Your task to perform on an android device: Go to sound settings Image 0: 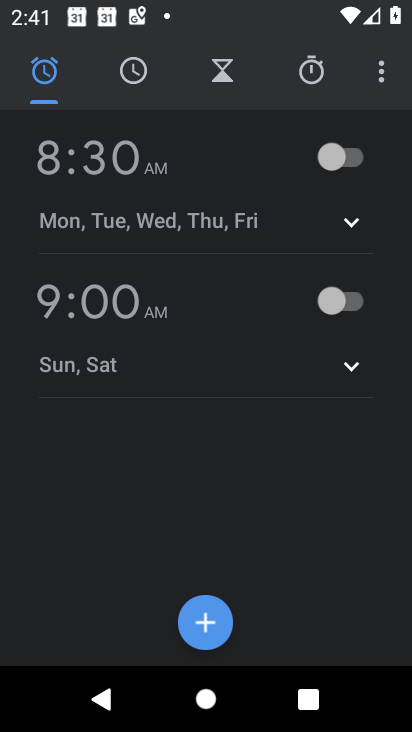
Step 0: press home button
Your task to perform on an android device: Go to sound settings Image 1: 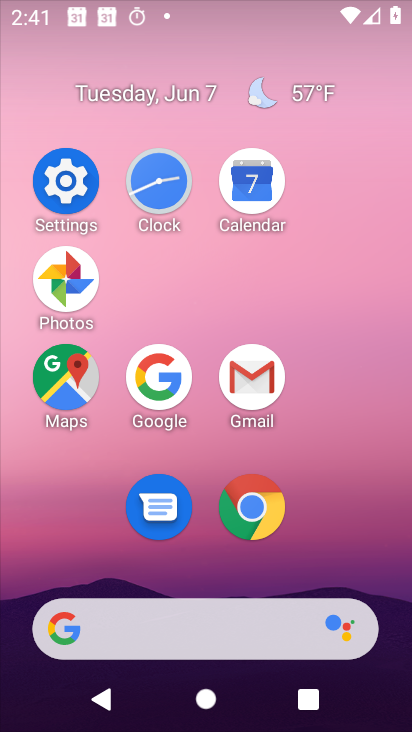
Step 1: click (55, 179)
Your task to perform on an android device: Go to sound settings Image 2: 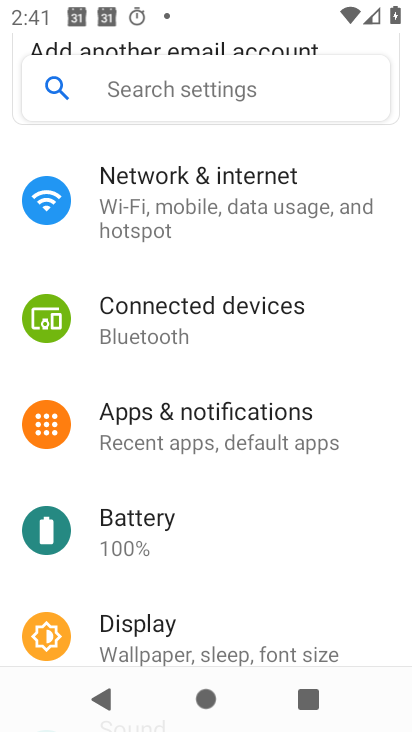
Step 2: drag from (190, 521) to (246, 154)
Your task to perform on an android device: Go to sound settings Image 3: 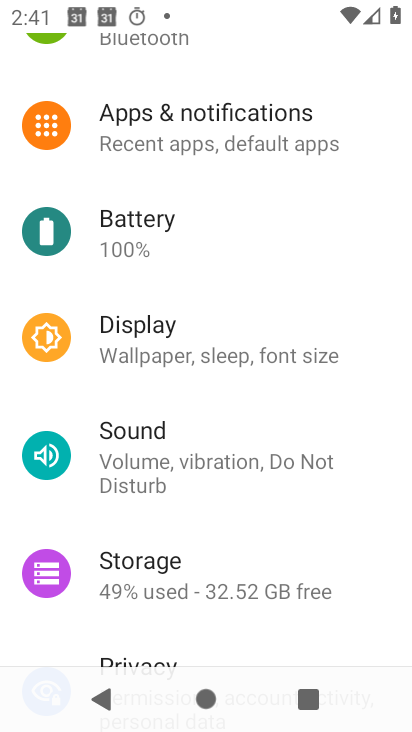
Step 3: drag from (203, 498) to (230, 229)
Your task to perform on an android device: Go to sound settings Image 4: 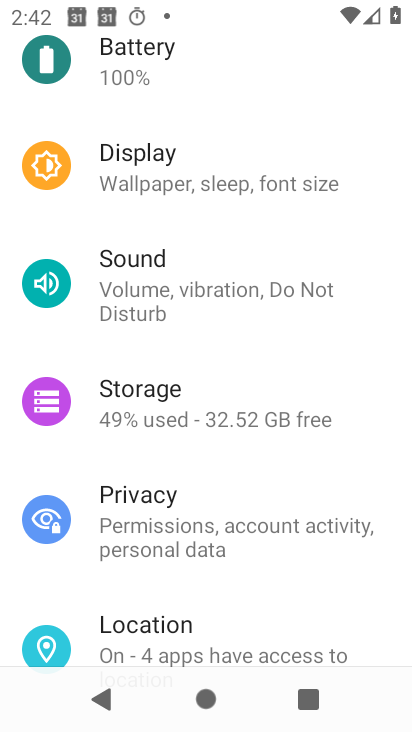
Step 4: drag from (293, 101) to (194, 602)
Your task to perform on an android device: Go to sound settings Image 5: 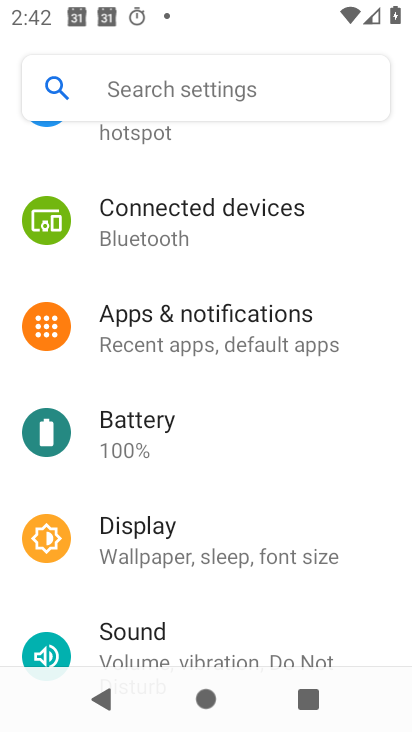
Step 5: drag from (252, 508) to (298, 206)
Your task to perform on an android device: Go to sound settings Image 6: 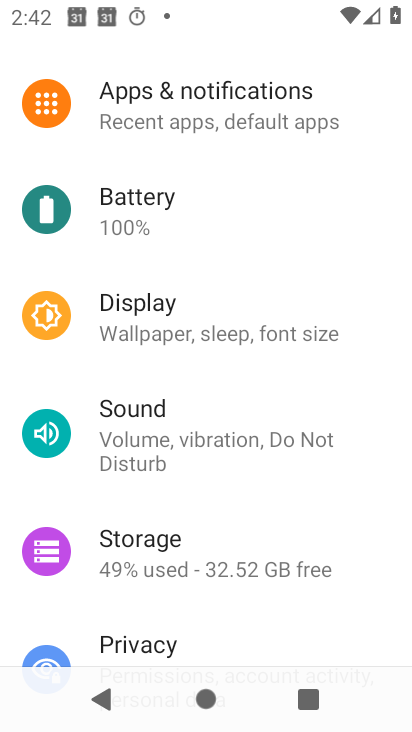
Step 6: drag from (319, 597) to (339, 238)
Your task to perform on an android device: Go to sound settings Image 7: 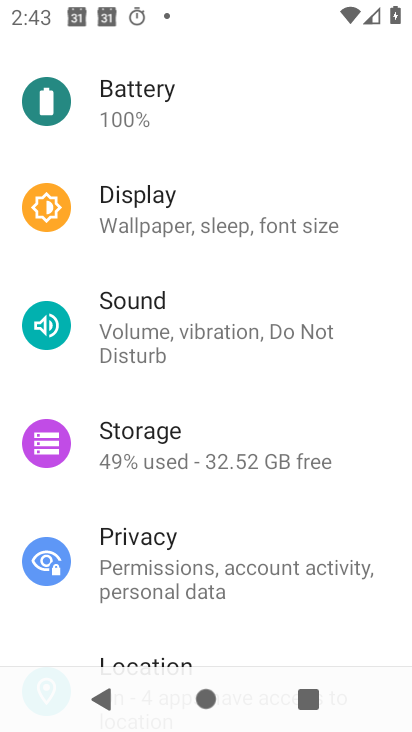
Step 7: click (247, 278)
Your task to perform on an android device: Go to sound settings Image 8: 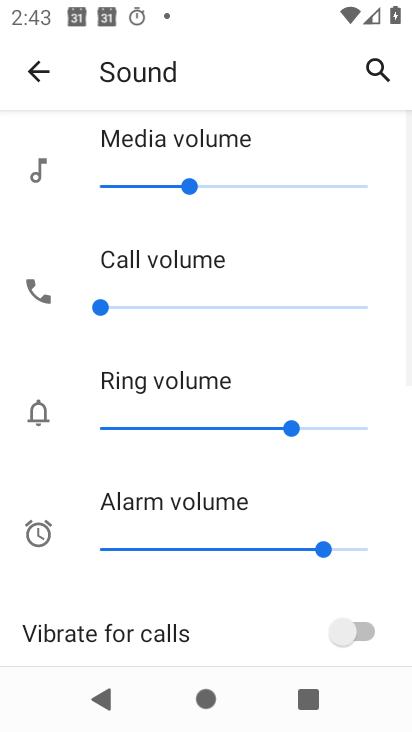
Step 8: task complete